Your task to perform on an android device: Go to display settings Image 0: 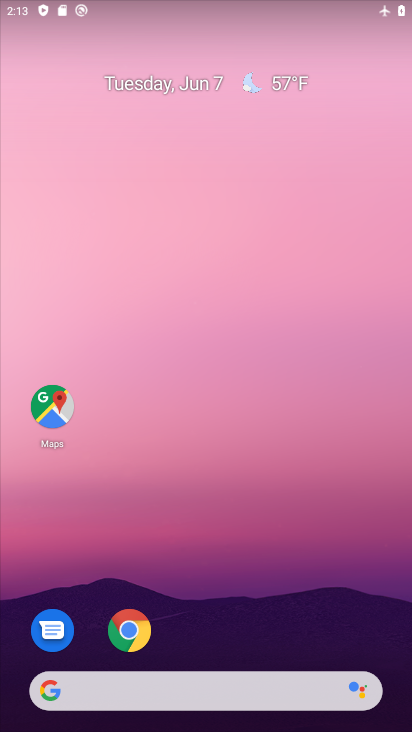
Step 0: drag from (389, 694) to (315, 2)
Your task to perform on an android device: Go to display settings Image 1: 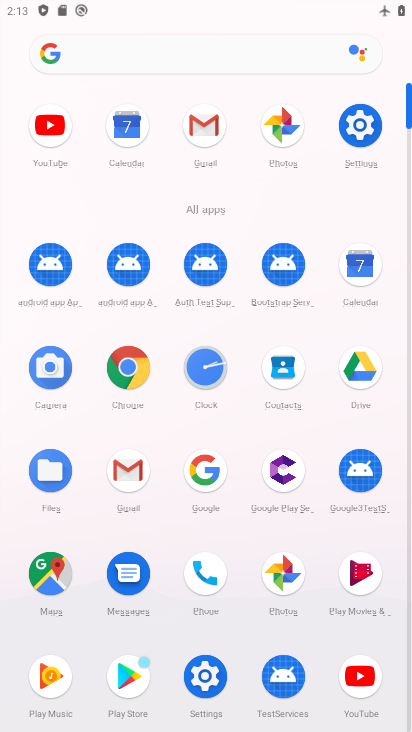
Step 1: click (362, 130)
Your task to perform on an android device: Go to display settings Image 2: 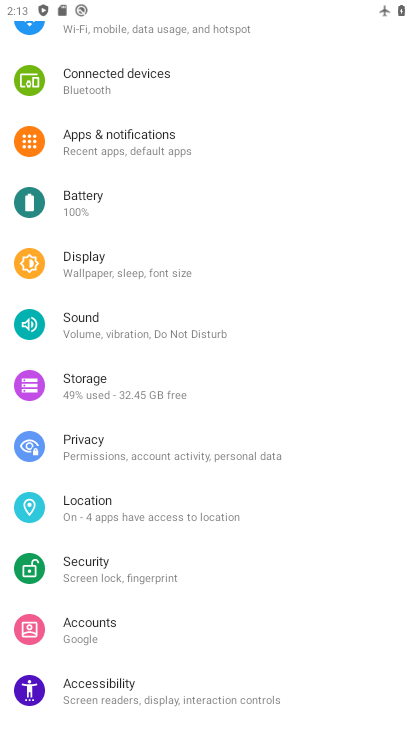
Step 2: click (77, 260)
Your task to perform on an android device: Go to display settings Image 3: 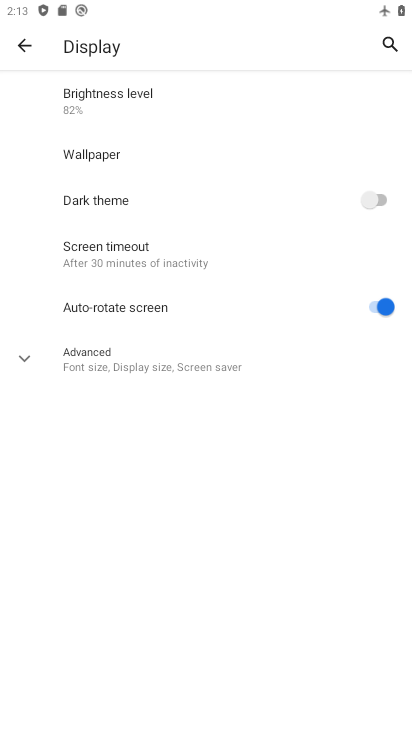
Step 3: click (27, 355)
Your task to perform on an android device: Go to display settings Image 4: 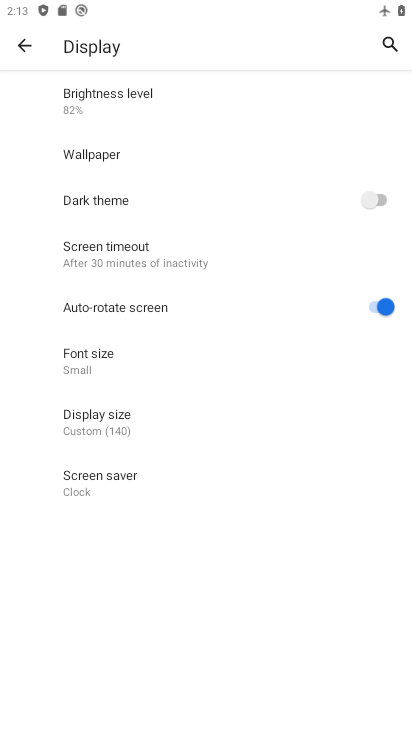
Step 4: task complete